Your task to perform on an android device: Open Google Chrome and open the bookmarks view Image 0: 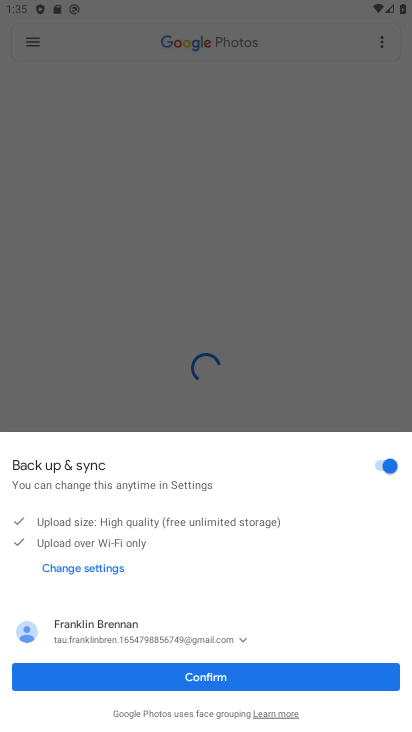
Step 0: press home button
Your task to perform on an android device: Open Google Chrome and open the bookmarks view Image 1: 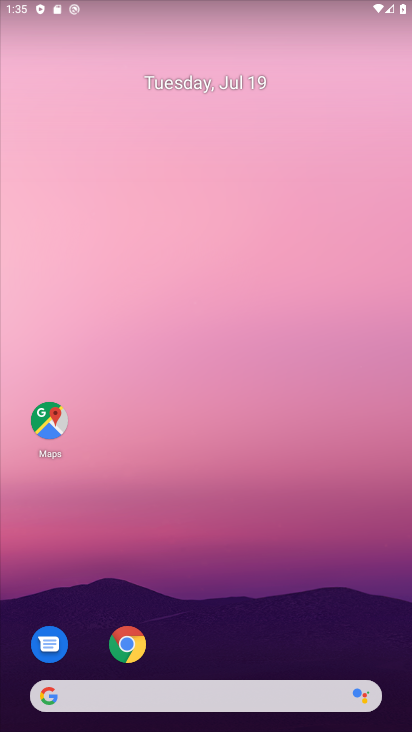
Step 1: click (132, 632)
Your task to perform on an android device: Open Google Chrome and open the bookmarks view Image 2: 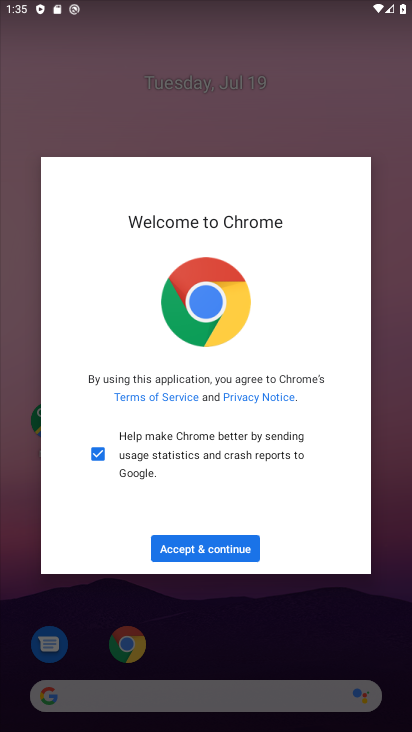
Step 2: click (230, 536)
Your task to perform on an android device: Open Google Chrome and open the bookmarks view Image 3: 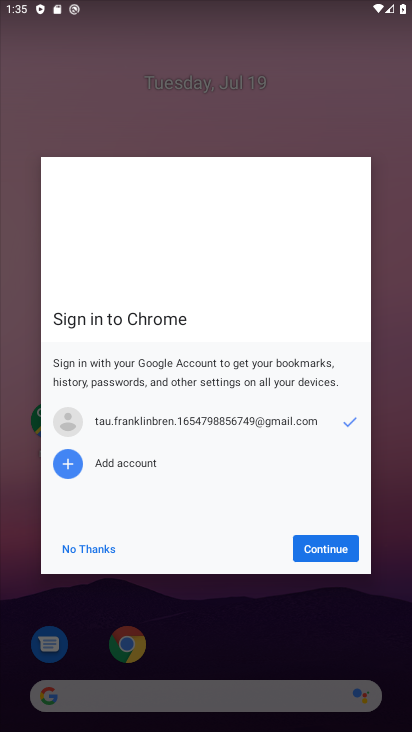
Step 3: click (303, 553)
Your task to perform on an android device: Open Google Chrome and open the bookmarks view Image 4: 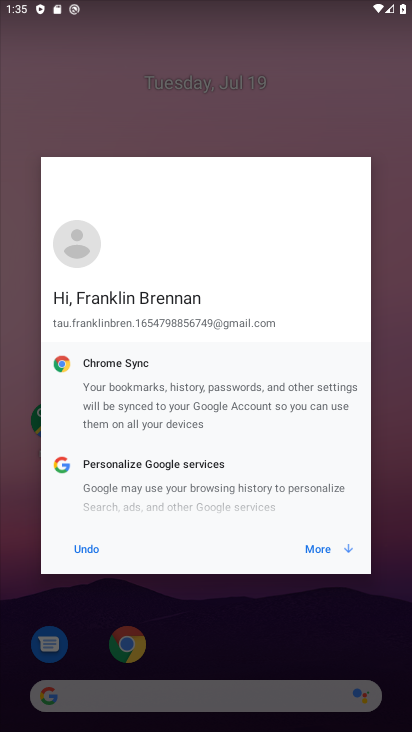
Step 4: click (341, 558)
Your task to perform on an android device: Open Google Chrome and open the bookmarks view Image 5: 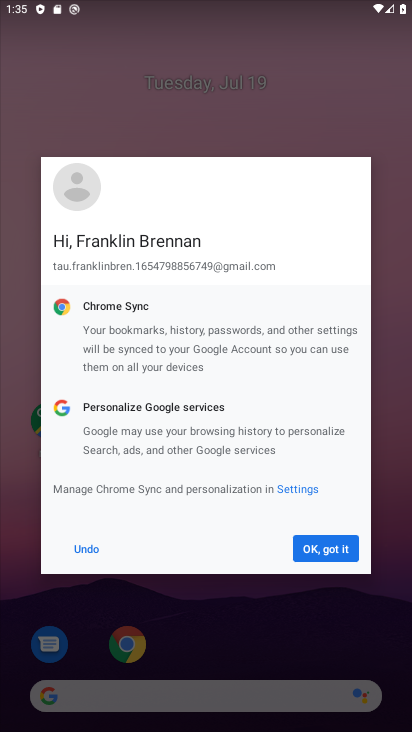
Step 5: click (347, 544)
Your task to perform on an android device: Open Google Chrome and open the bookmarks view Image 6: 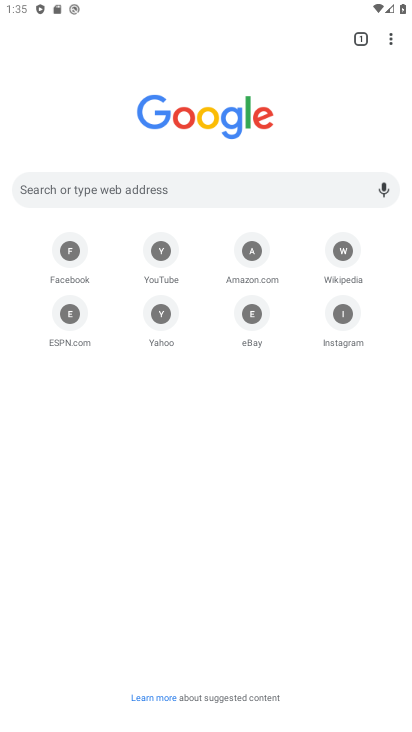
Step 6: click (387, 43)
Your task to perform on an android device: Open Google Chrome and open the bookmarks view Image 7: 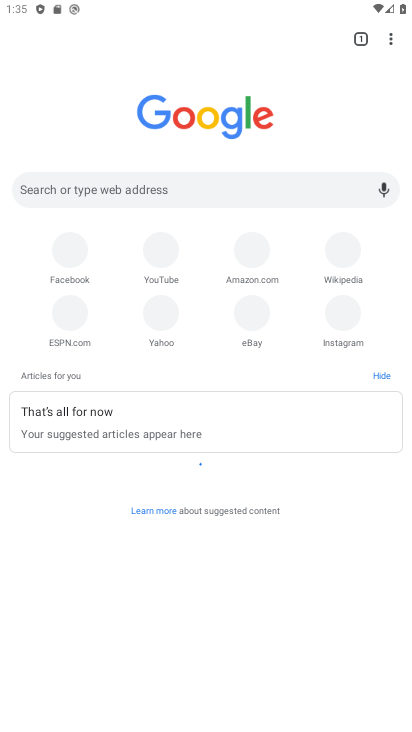
Step 7: task complete